Your task to perform on an android device: uninstall "LiveIn - Share Your Moment" Image 0: 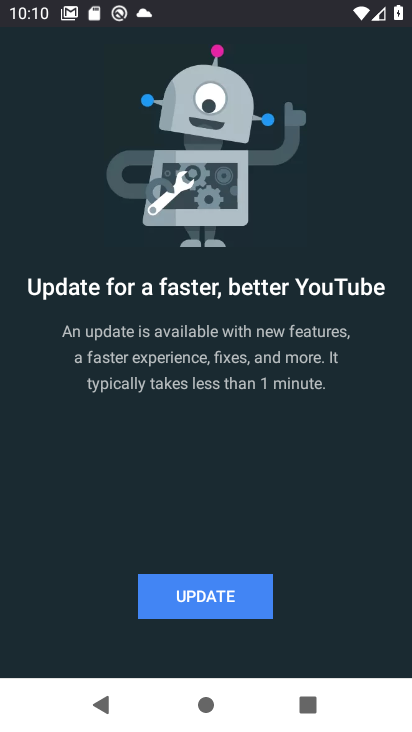
Step 0: press home button
Your task to perform on an android device: uninstall "LiveIn - Share Your Moment" Image 1: 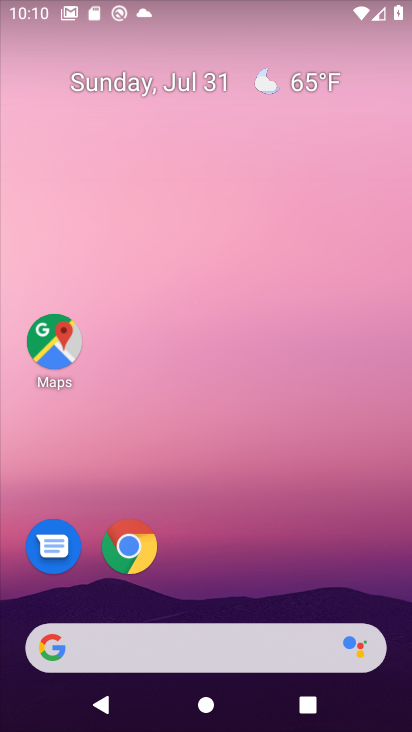
Step 1: drag from (191, 513) to (289, 0)
Your task to perform on an android device: uninstall "LiveIn - Share Your Moment" Image 2: 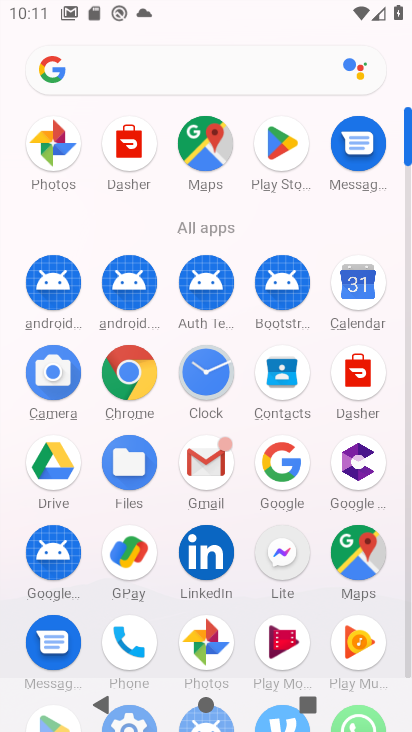
Step 2: click (272, 143)
Your task to perform on an android device: uninstall "LiveIn - Share Your Moment" Image 3: 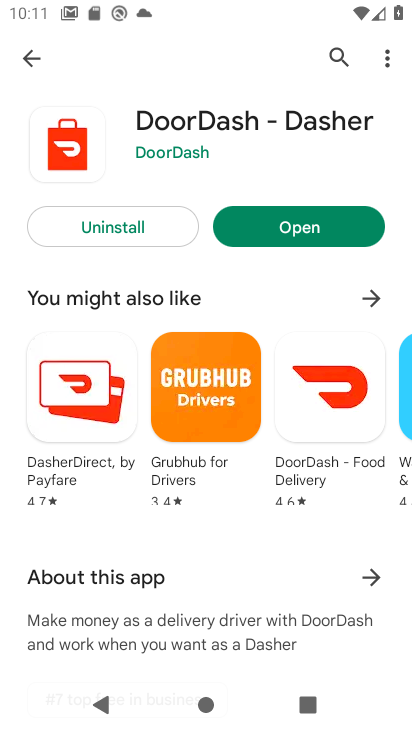
Step 3: click (338, 51)
Your task to perform on an android device: uninstall "LiveIn - Share Your Moment" Image 4: 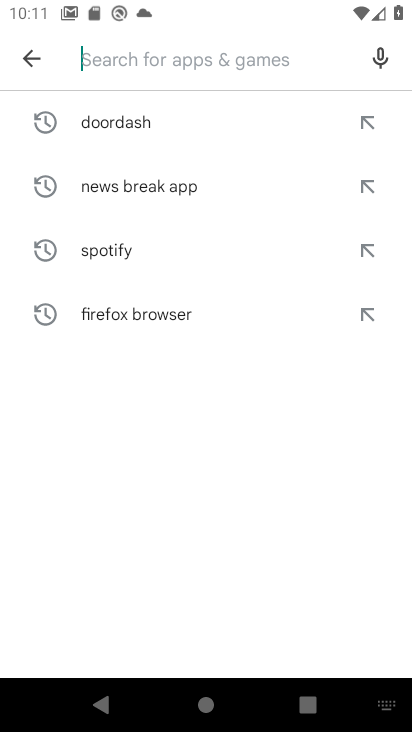
Step 4: click (214, 64)
Your task to perform on an android device: uninstall "LiveIn - Share Your Moment" Image 5: 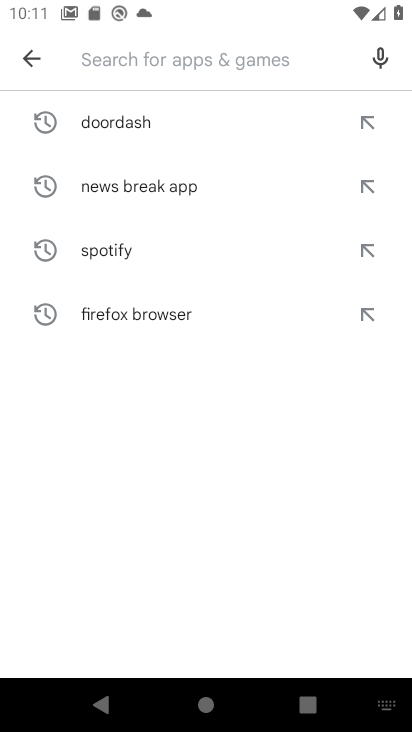
Step 5: type "liveln"
Your task to perform on an android device: uninstall "LiveIn - Share Your Moment" Image 6: 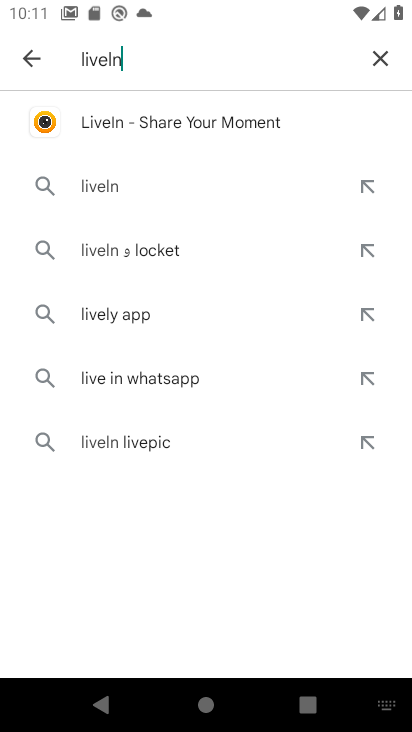
Step 6: click (156, 128)
Your task to perform on an android device: uninstall "LiveIn - Share Your Moment" Image 7: 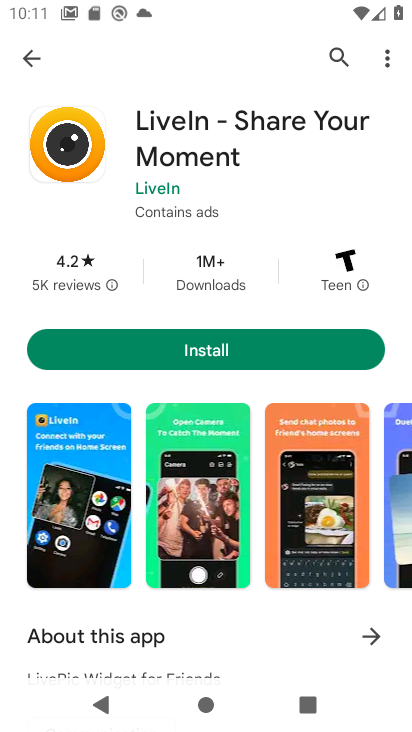
Step 7: task complete